Your task to perform on an android device: Open display settings Image 0: 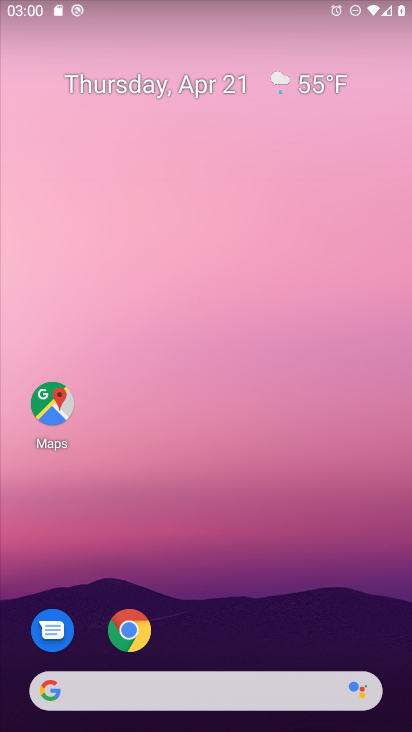
Step 0: drag from (323, 620) to (252, 119)
Your task to perform on an android device: Open display settings Image 1: 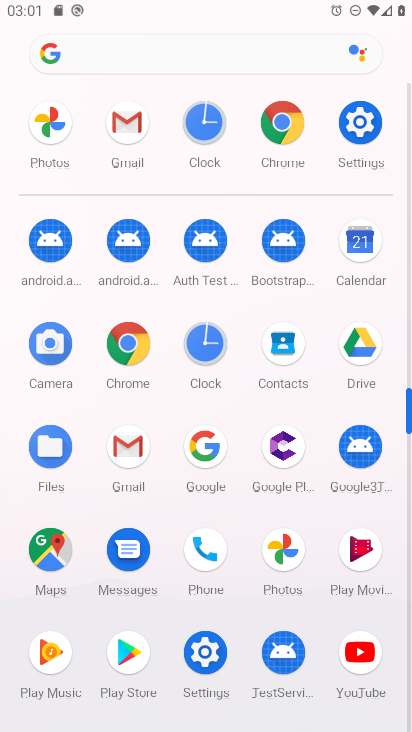
Step 1: click (211, 645)
Your task to perform on an android device: Open display settings Image 2: 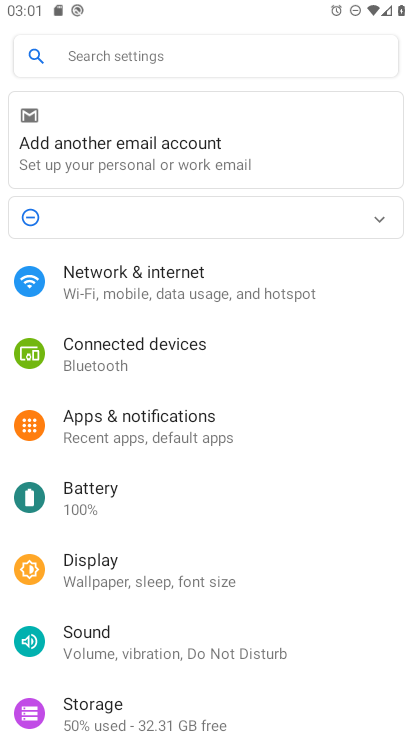
Step 2: click (134, 571)
Your task to perform on an android device: Open display settings Image 3: 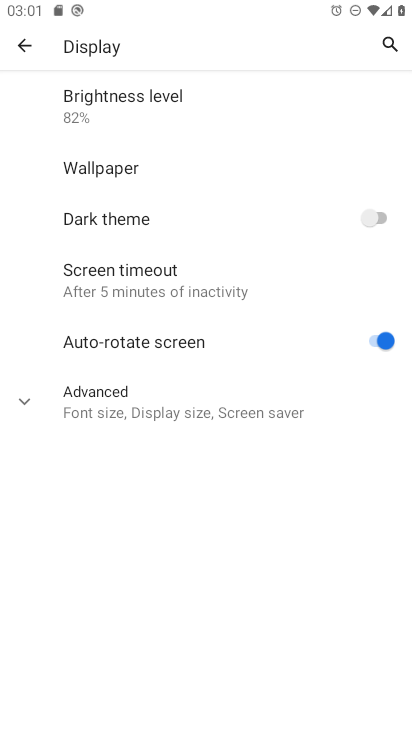
Step 3: task complete